Your task to perform on an android device: Open the calendar app, open the side menu, and click the "Day" option Image 0: 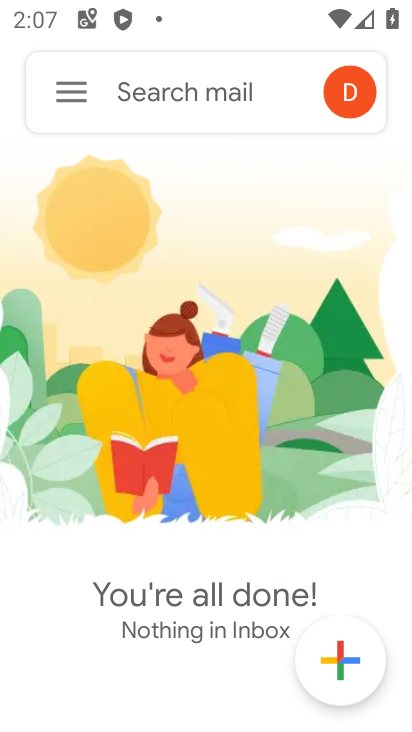
Step 0: press home button
Your task to perform on an android device: Open the calendar app, open the side menu, and click the "Day" option Image 1: 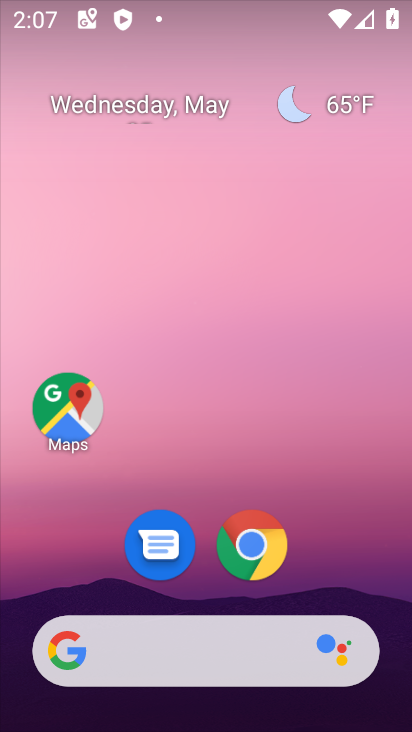
Step 1: drag from (364, 535) to (247, 121)
Your task to perform on an android device: Open the calendar app, open the side menu, and click the "Day" option Image 2: 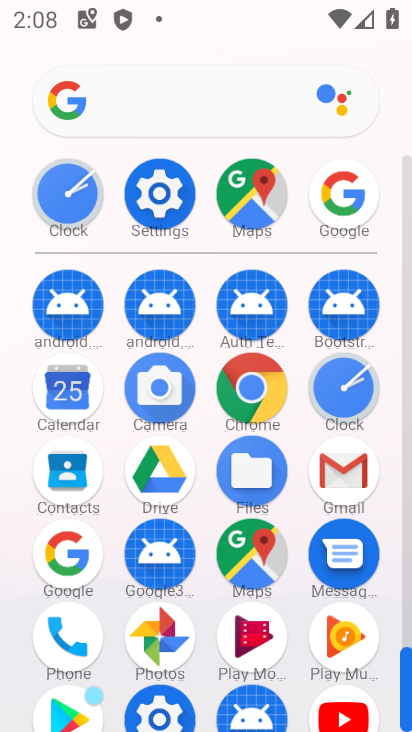
Step 2: click (72, 391)
Your task to perform on an android device: Open the calendar app, open the side menu, and click the "Day" option Image 3: 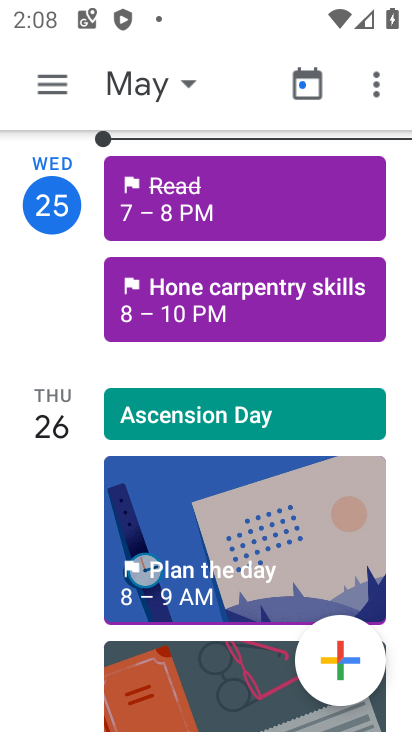
Step 3: click (53, 102)
Your task to perform on an android device: Open the calendar app, open the side menu, and click the "Day" option Image 4: 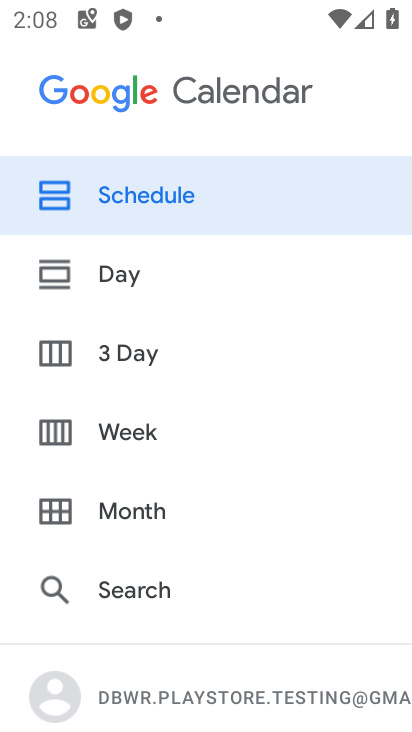
Step 4: click (152, 272)
Your task to perform on an android device: Open the calendar app, open the side menu, and click the "Day" option Image 5: 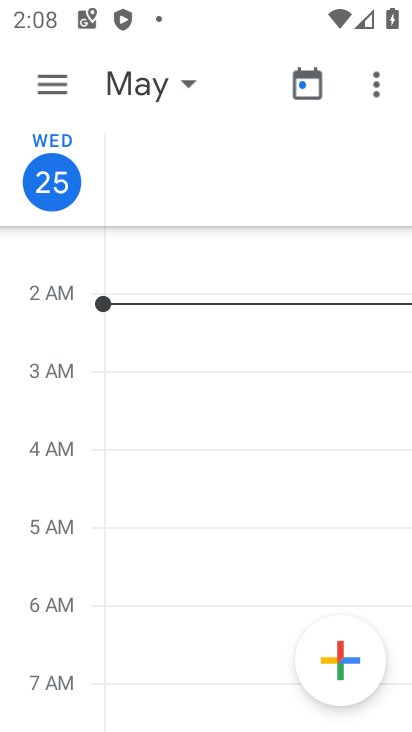
Step 5: task complete